Your task to perform on an android device: Go to eBay Image 0: 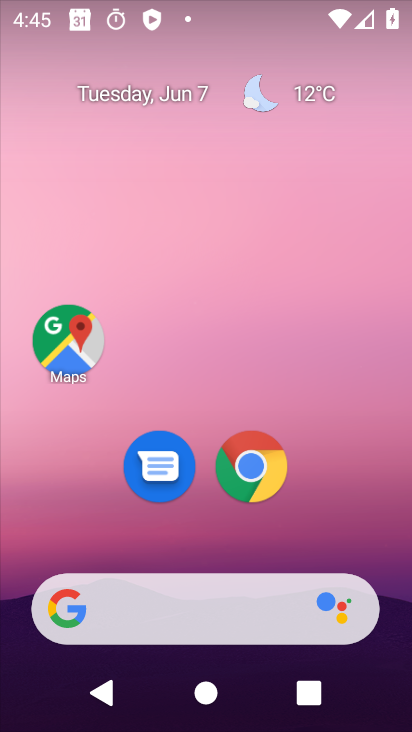
Step 0: click (252, 470)
Your task to perform on an android device: Go to eBay Image 1: 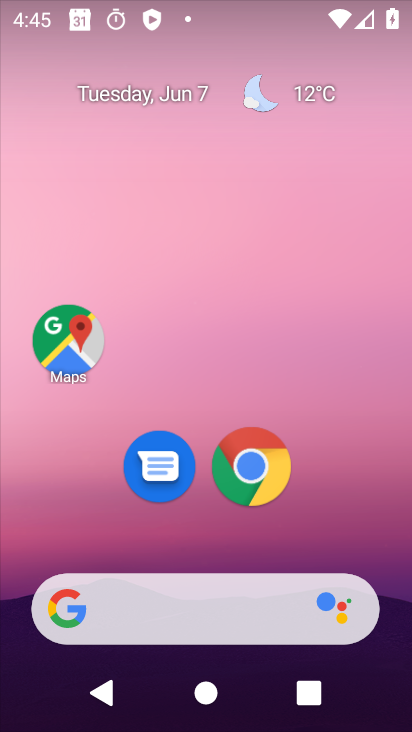
Step 1: click (252, 470)
Your task to perform on an android device: Go to eBay Image 2: 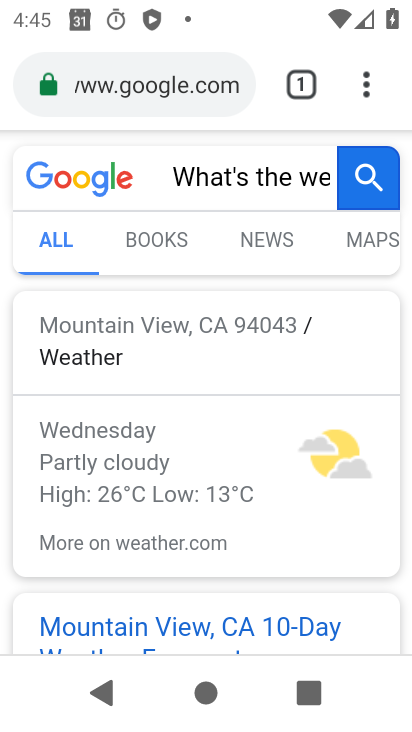
Step 2: click (298, 98)
Your task to perform on an android device: Go to eBay Image 3: 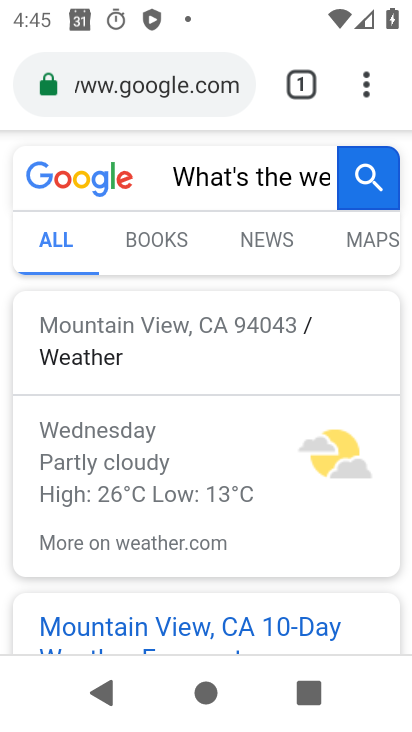
Step 3: click (298, 98)
Your task to perform on an android device: Go to eBay Image 4: 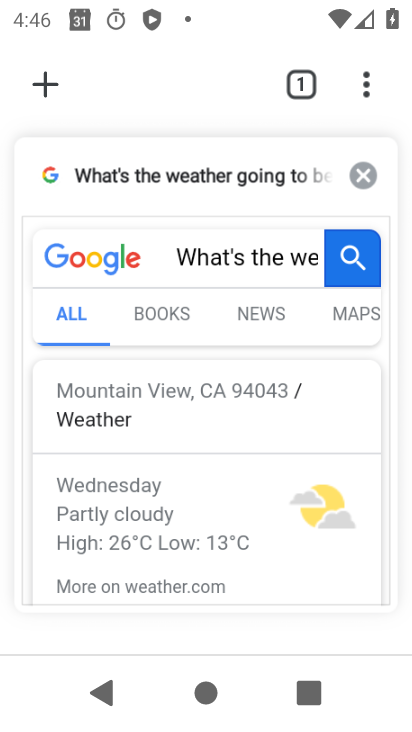
Step 4: click (55, 91)
Your task to perform on an android device: Go to eBay Image 5: 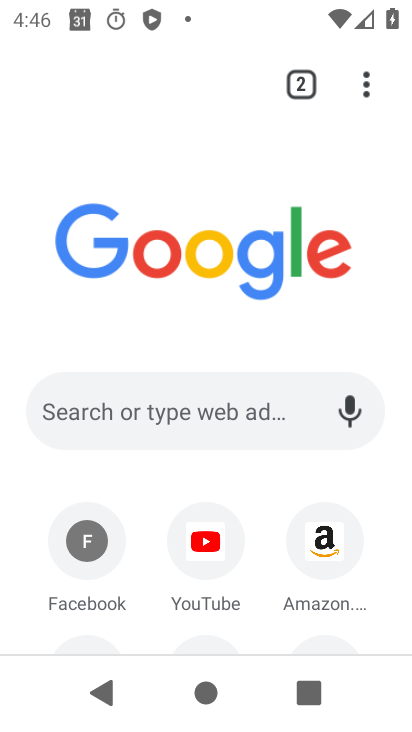
Step 5: drag from (268, 433) to (252, 254)
Your task to perform on an android device: Go to eBay Image 6: 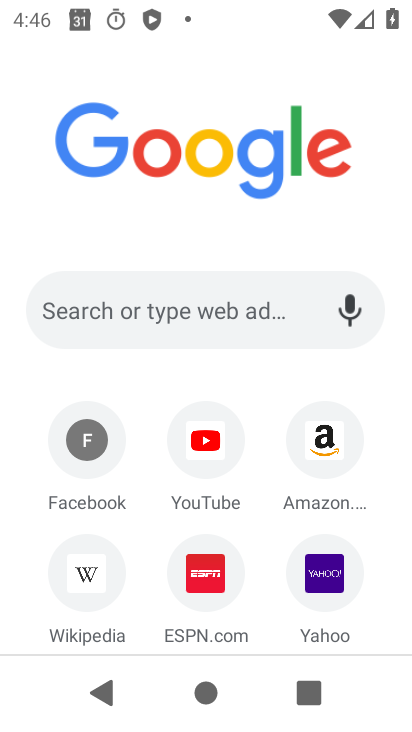
Step 6: click (215, 314)
Your task to perform on an android device: Go to eBay Image 7: 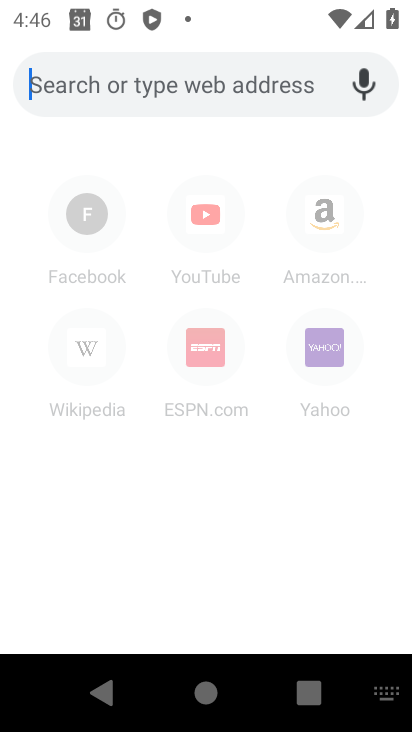
Step 7: type "eBay"
Your task to perform on an android device: Go to eBay Image 8: 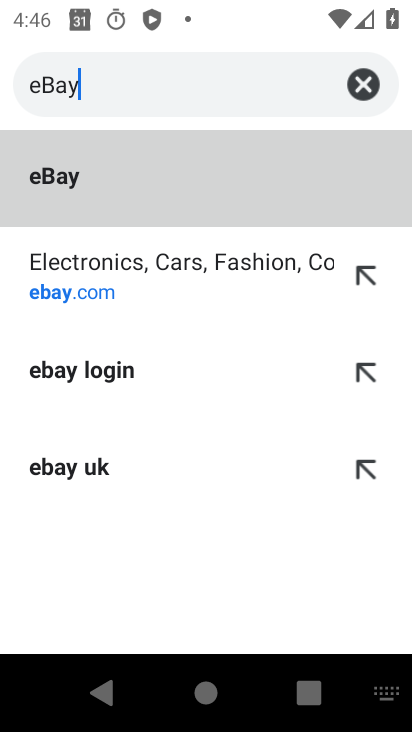
Step 8: click (86, 290)
Your task to perform on an android device: Go to eBay Image 9: 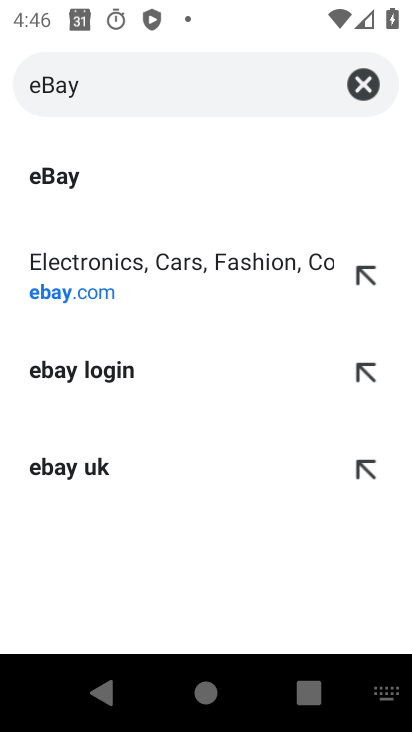
Step 9: click (99, 188)
Your task to perform on an android device: Go to eBay Image 10: 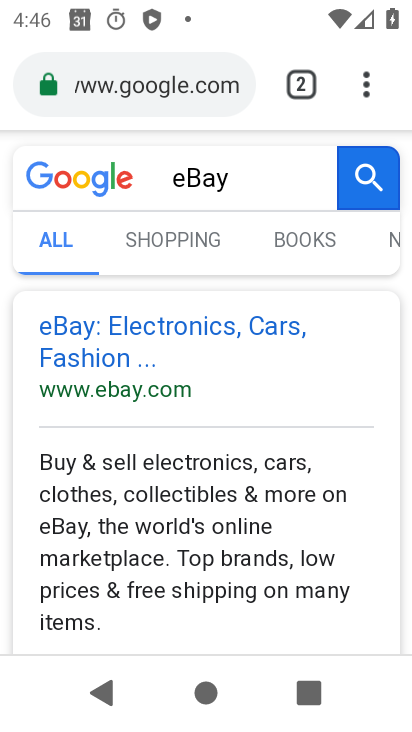
Step 10: click (192, 349)
Your task to perform on an android device: Go to eBay Image 11: 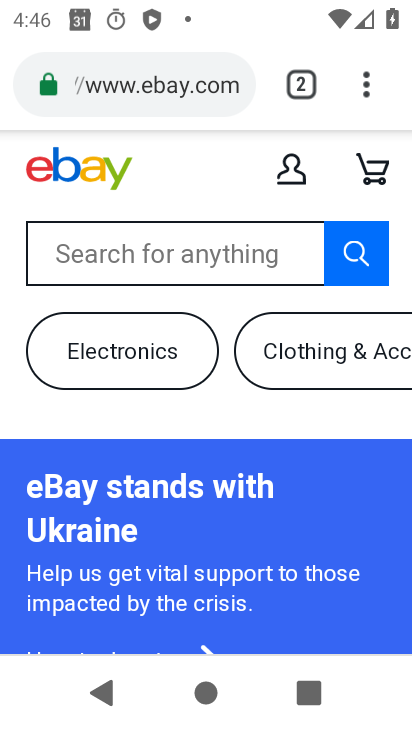
Step 11: task complete